Your task to perform on an android device: find which apps use the phone's location Image 0: 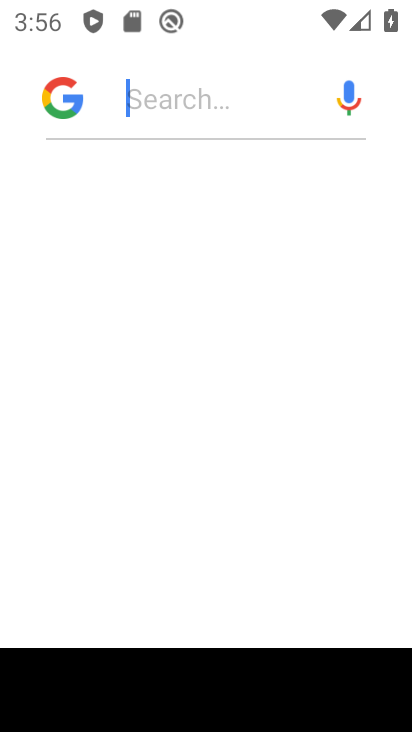
Step 0: press home button
Your task to perform on an android device: find which apps use the phone's location Image 1: 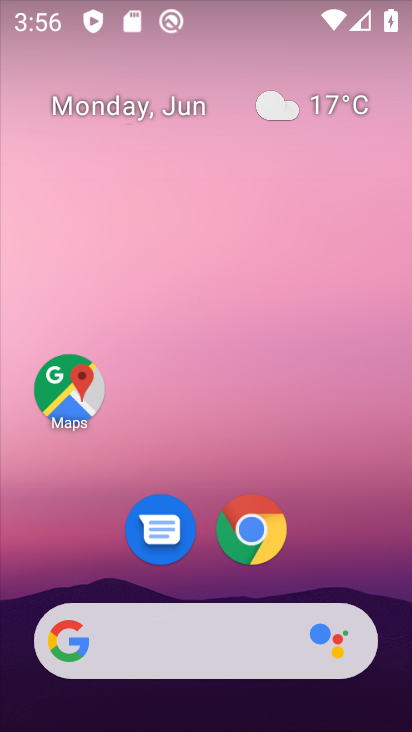
Step 1: drag from (333, 487) to (253, 21)
Your task to perform on an android device: find which apps use the phone's location Image 2: 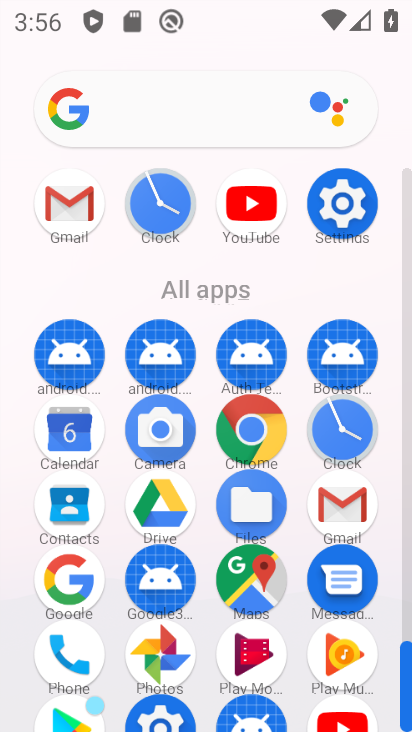
Step 2: click (343, 202)
Your task to perform on an android device: find which apps use the phone's location Image 3: 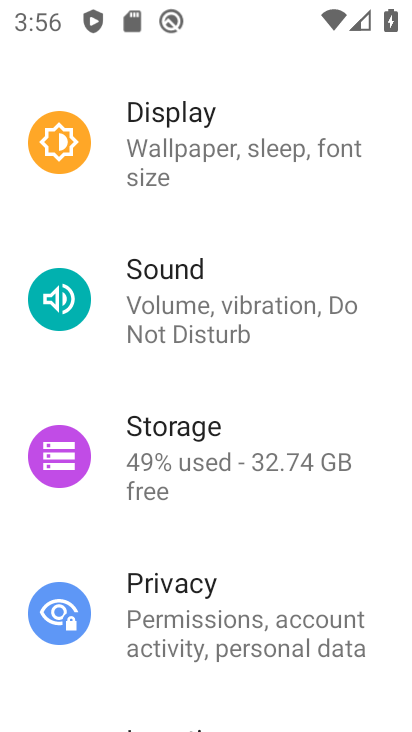
Step 3: drag from (274, 556) to (314, 163)
Your task to perform on an android device: find which apps use the phone's location Image 4: 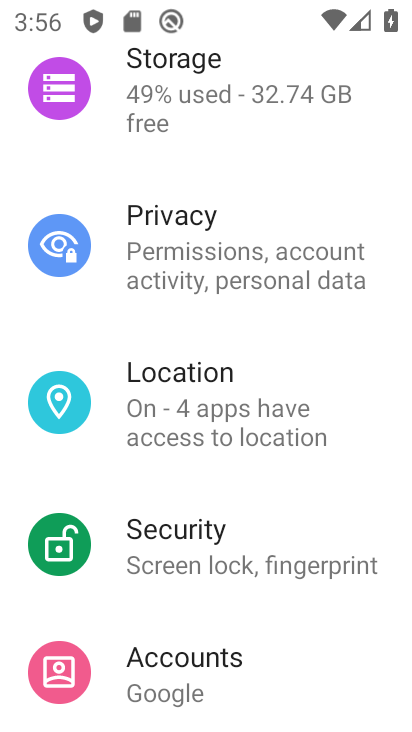
Step 4: click (197, 367)
Your task to perform on an android device: find which apps use the phone's location Image 5: 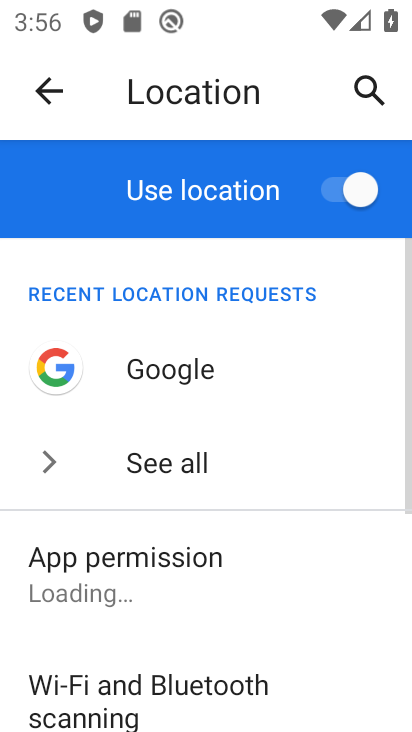
Step 5: click (136, 553)
Your task to perform on an android device: find which apps use the phone's location Image 6: 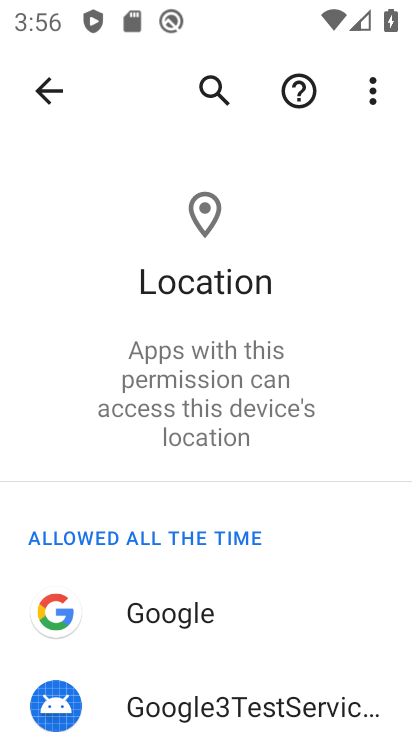
Step 6: drag from (199, 640) to (309, 302)
Your task to perform on an android device: find which apps use the phone's location Image 7: 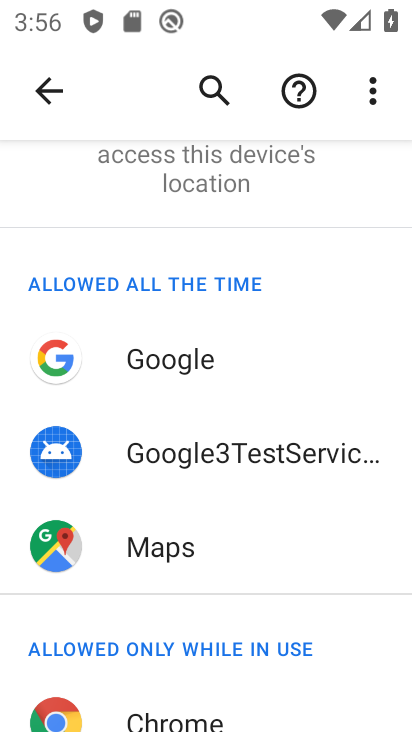
Step 7: click (183, 565)
Your task to perform on an android device: find which apps use the phone's location Image 8: 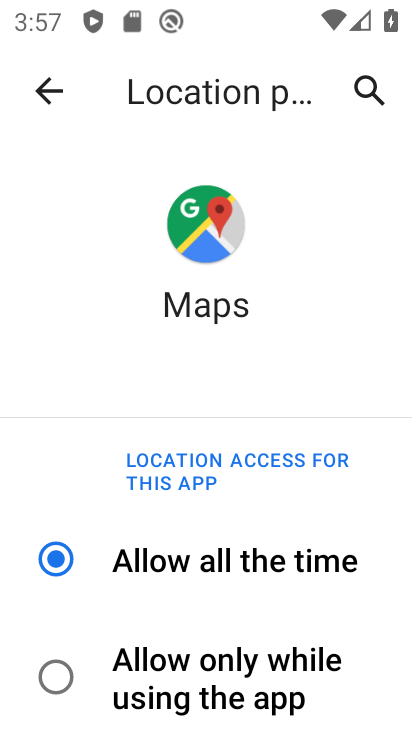
Step 8: task complete